Your task to perform on an android device: Search for vegetarian restaurants on Maps Image 0: 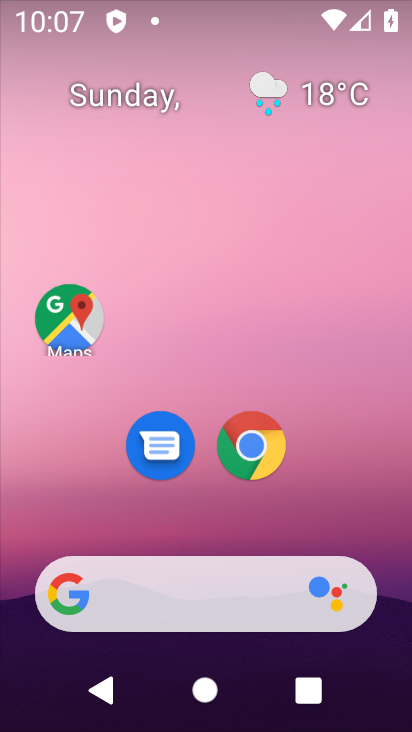
Step 0: press home button
Your task to perform on an android device: Search for vegetarian restaurants on Maps Image 1: 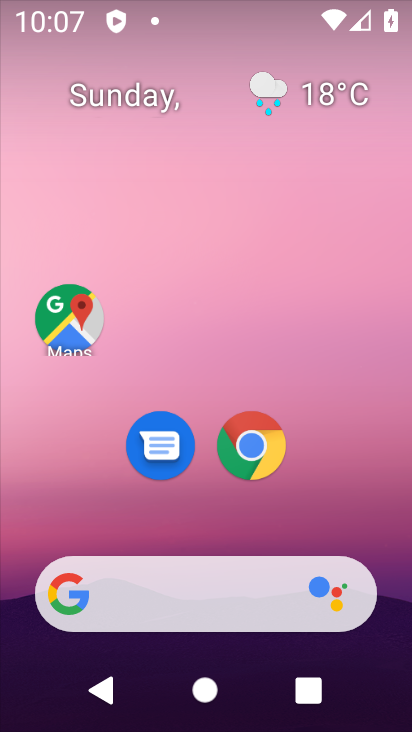
Step 1: click (65, 310)
Your task to perform on an android device: Search for vegetarian restaurants on Maps Image 2: 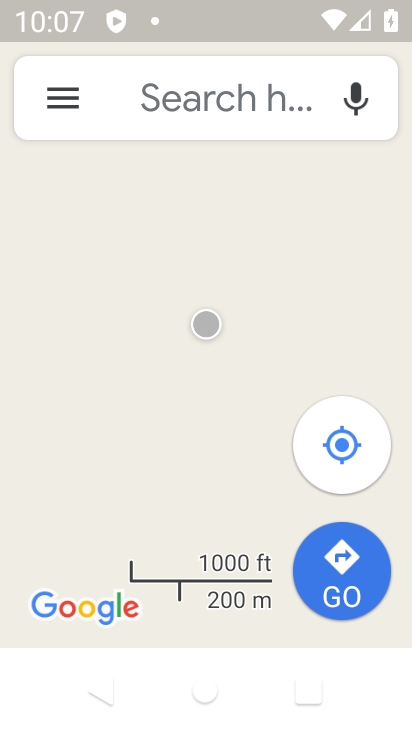
Step 2: click (168, 88)
Your task to perform on an android device: Search for vegetarian restaurants on Maps Image 3: 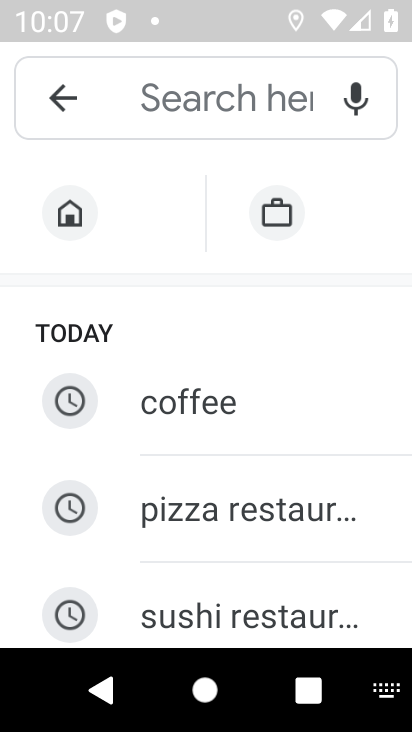
Step 3: type "vegetarian"
Your task to perform on an android device: Search for vegetarian restaurants on Maps Image 4: 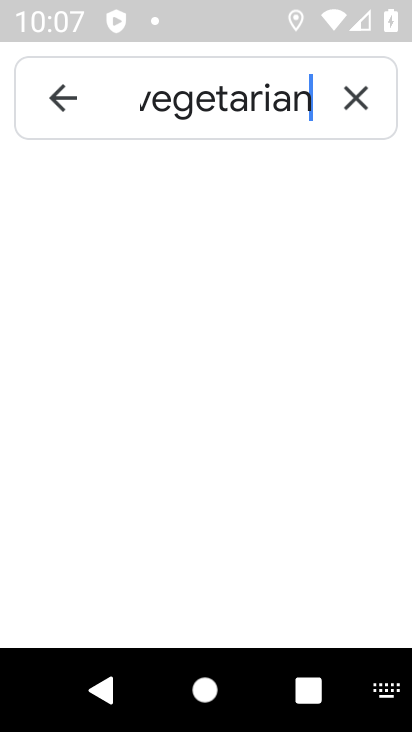
Step 4: type ""
Your task to perform on an android device: Search for vegetarian restaurants on Maps Image 5: 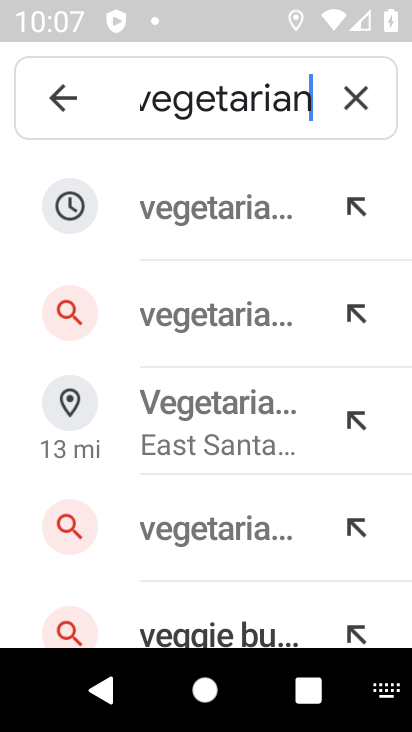
Step 5: click (190, 208)
Your task to perform on an android device: Search for vegetarian restaurants on Maps Image 6: 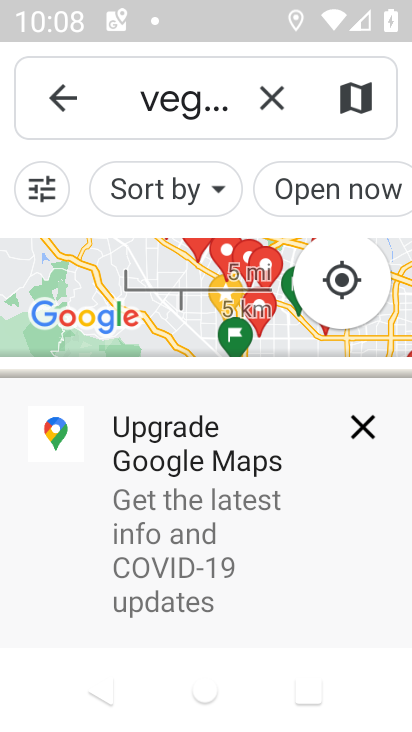
Step 6: task complete